Your task to perform on an android device: turn on wifi Image 0: 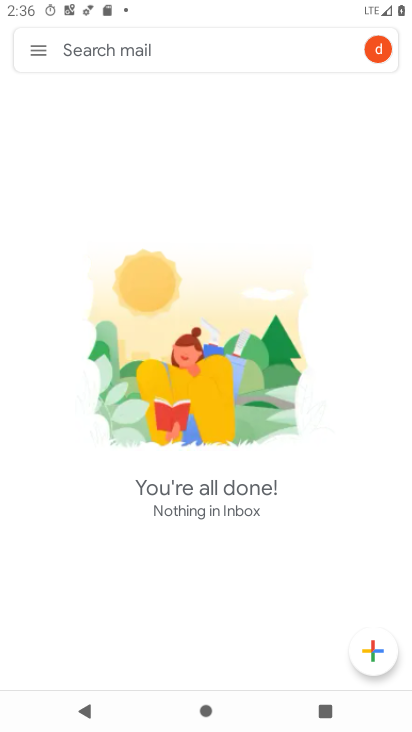
Step 0: press home button
Your task to perform on an android device: turn on wifi Image 1: 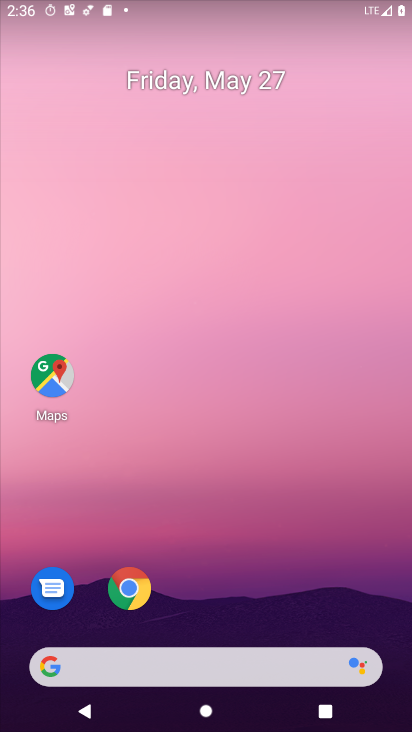
Step 1: drag from (220, 491) to (219, 11)
Your task to perform on an android device: turn on wifi Image 2: 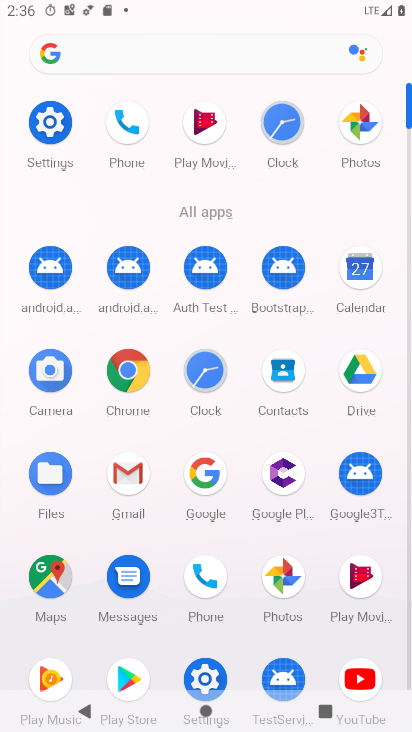
Step 2: click (49, 126)
Your task to perform on an android device: turn on wifi Image 3: 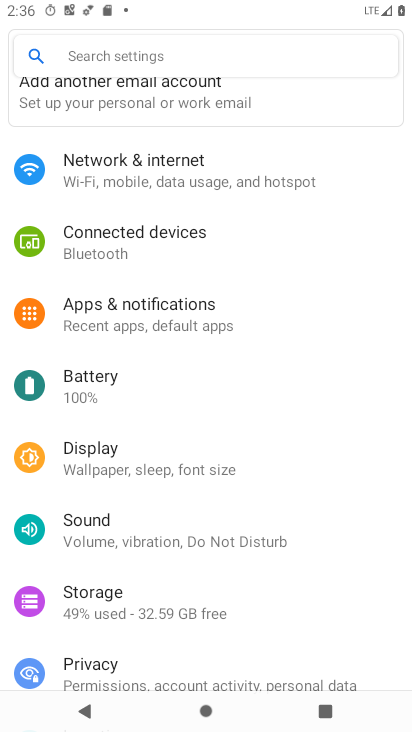
Step 3: click (188, 174)
Your task to perform on an android device: turn on wifi Image 4: 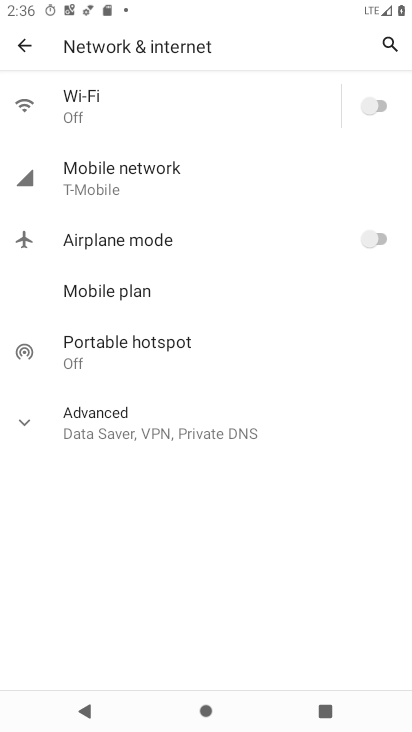
Step 4: click (374, 103)
Your task to perform on an android device: turn on wifi Image 5: 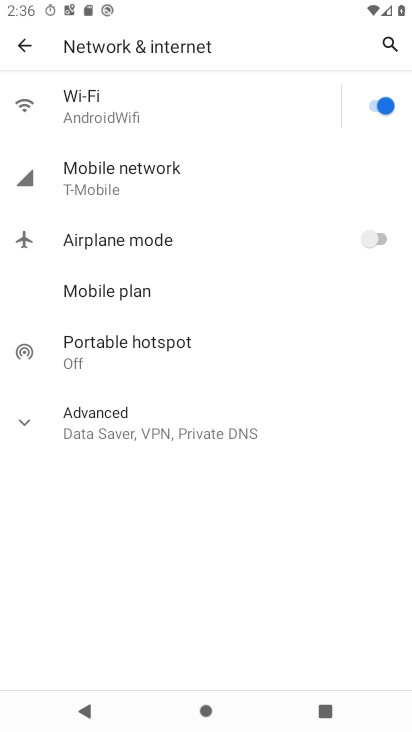
Step 5: task complete